Your task to perform on an android device: toggle data saver in the chrome app Image 0: 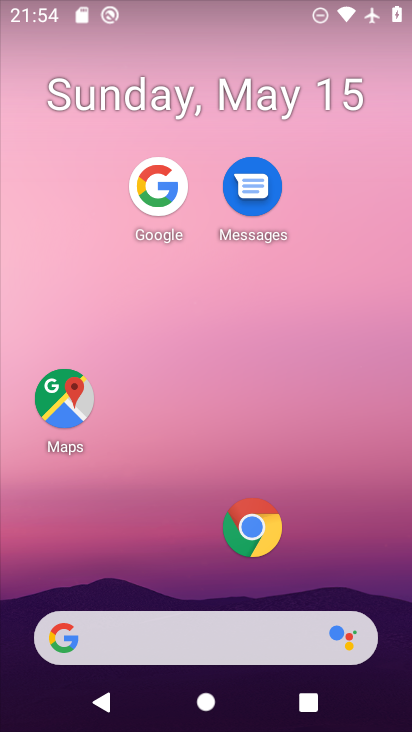
Step 0: drag from (257, 588) to (367, 162)
Your task to perform on an android device: toggle data saver in the chrome app Image 1: 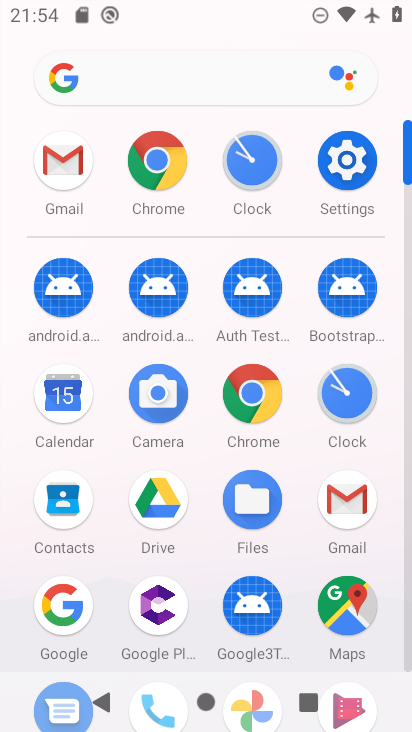
Step 1: click (159, 156)
Your task to perform on an android device: toggle data saver in the chrome app Image 2: 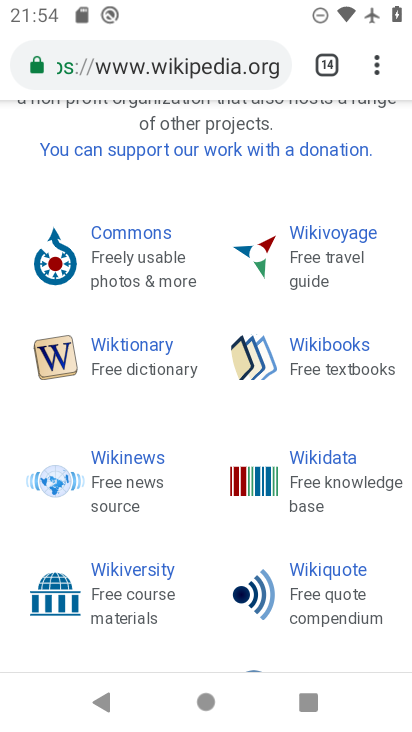
Step 2: drag from (373, 66) to (232, 586)
Your task to perform on an android device: toggle data saver in the chrome app Image 3: 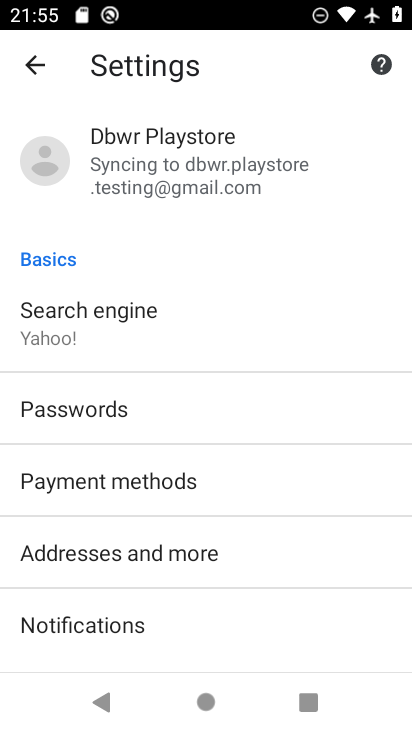
Step 3: drag from (177, 650) to (266, 106)
Your task to perform on an android device: toggle data saver in the chrome app Image 4: 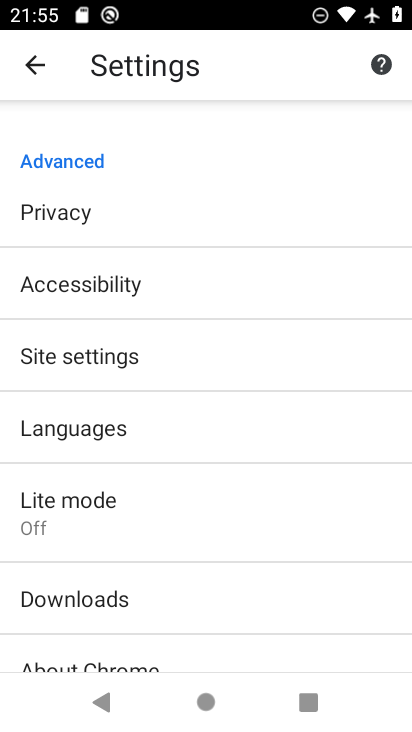
Step 4: click (112, 519)
Your task to perform on an android device: toggle data saver in the chrome app Image 5: 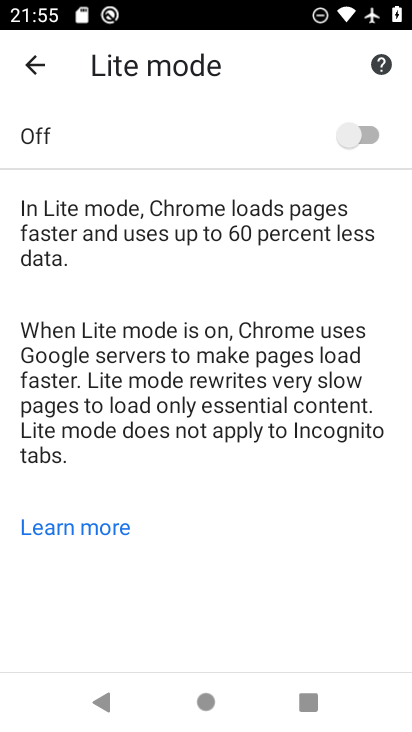
Step 5: click (364, 140)
Your task to perform on an android device: toggle data saver in the chrome app Image 6: 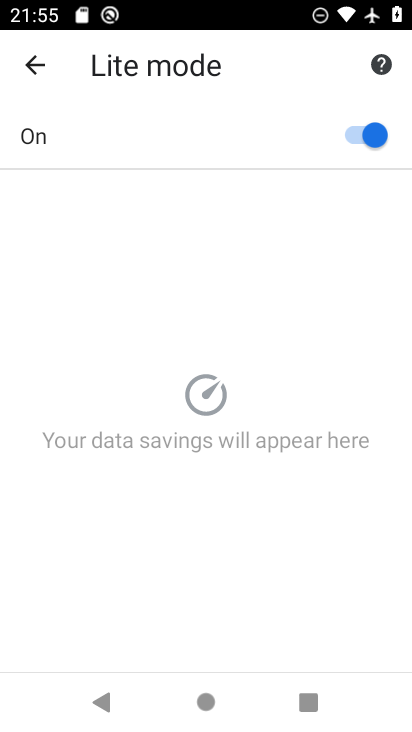
Step 6: task complete